Your task to perform on an android device: choose inbox layout in the gmail app Image 0: 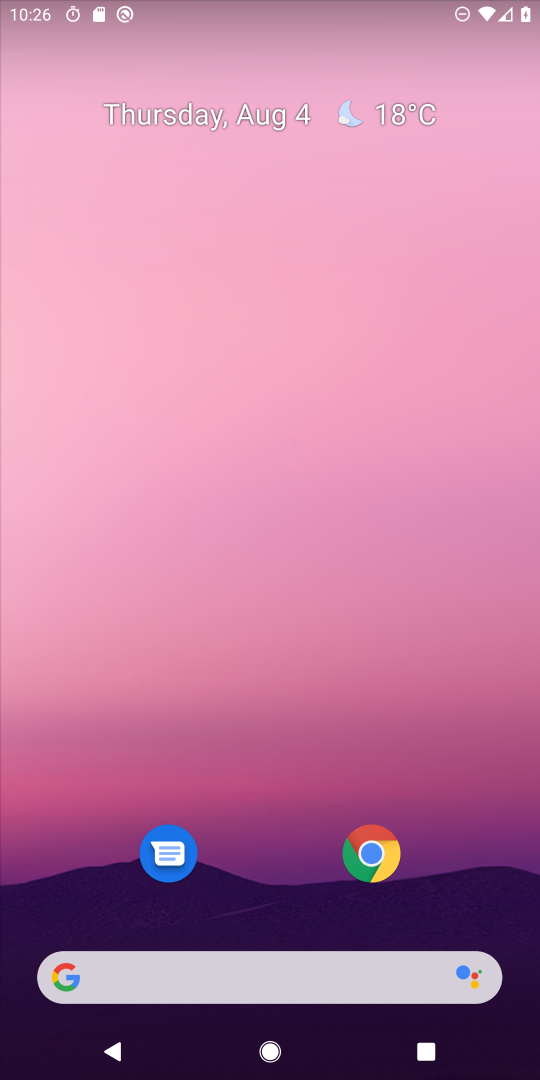
Step 0: drag from (261, 955) to (325, 208)
Your task to perform on an android device: choose inbox layout in the gmail app Image 1: 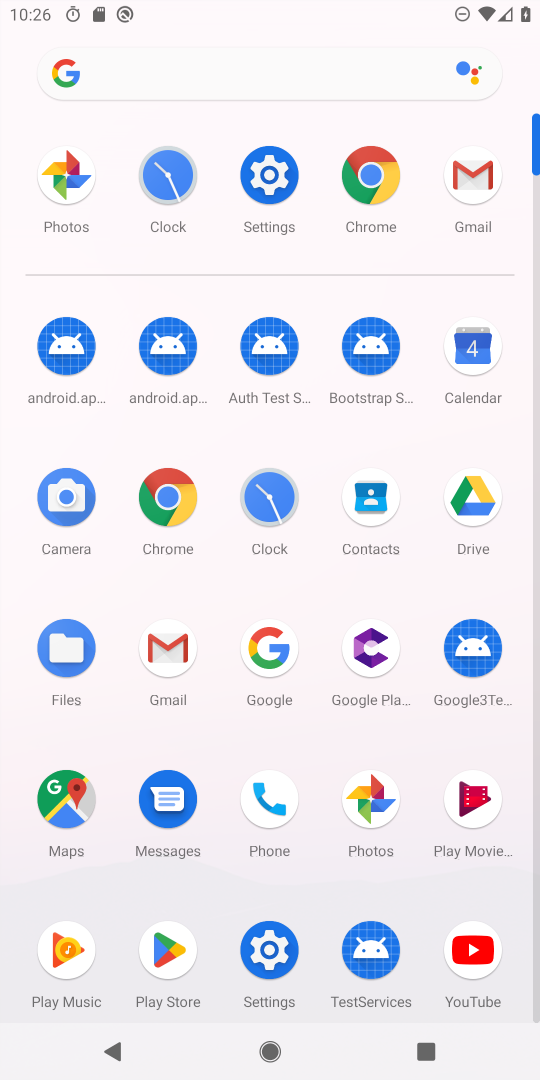
Step 1: click (183, 665)
Your task to perform on an android device: choose inbox layout in the gmail app Image 2: 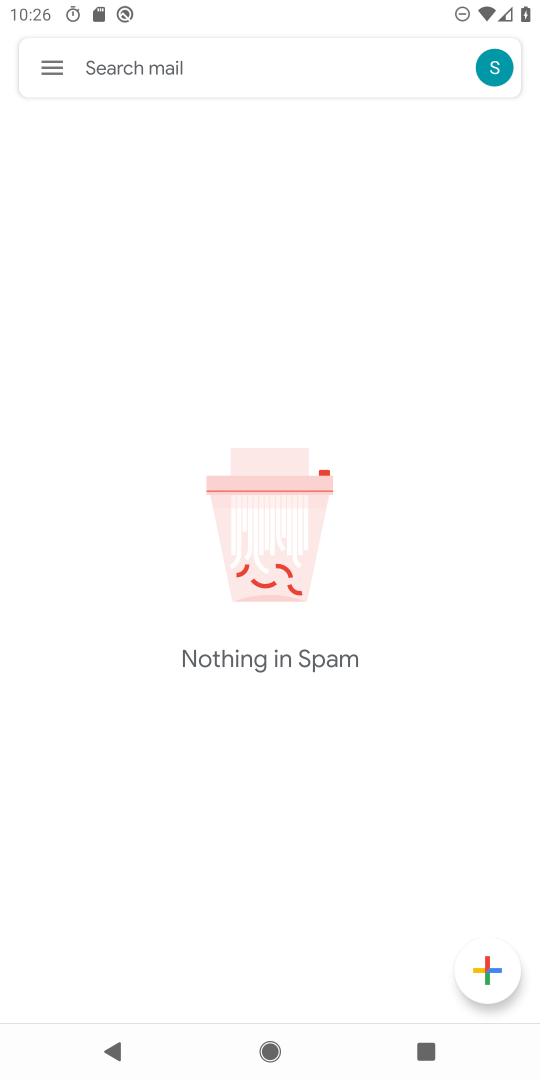
Step 2: click (46, 66)
Your task to perform on an android device: choose inbox layout in the gmail app Image 3: 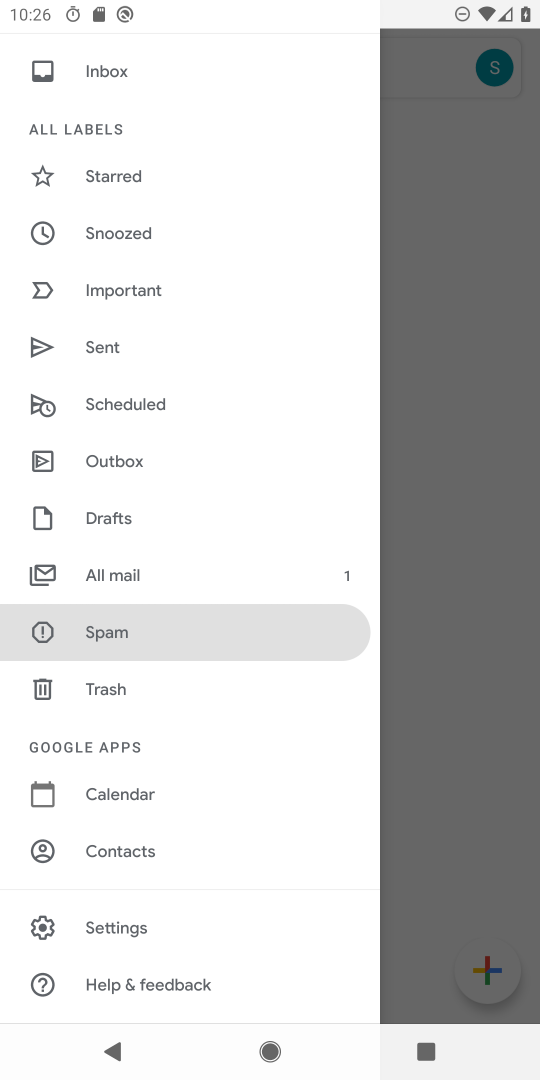
Step 3: drag from (121, 856) to (132, 467)
Your task to perform on an android device: choose inbox layout in the gmail app Image 4: 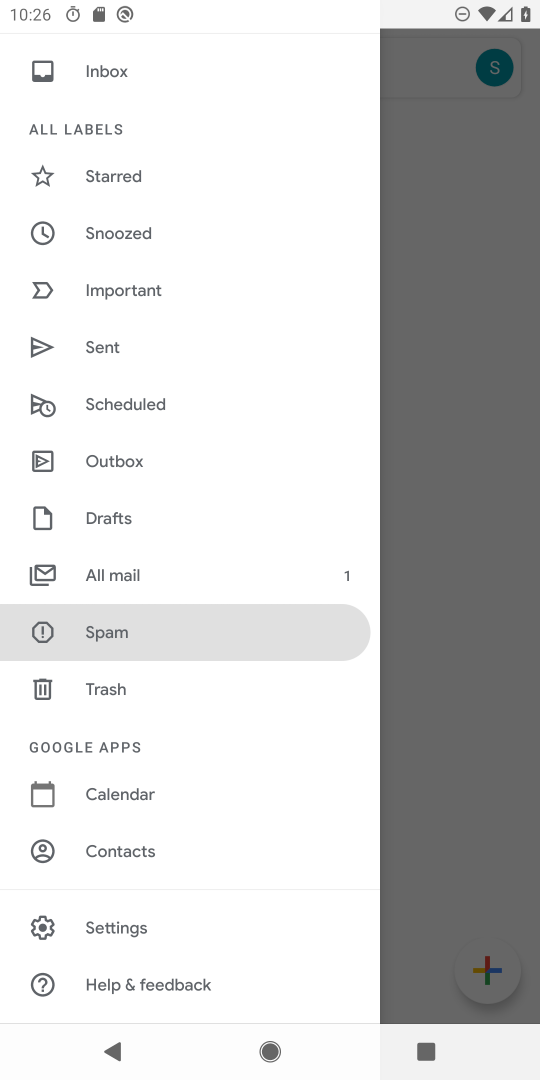
Step 4: click (124, 933)
Your task to perform on an android device: choose inbox layout in the gmail app Image 5: 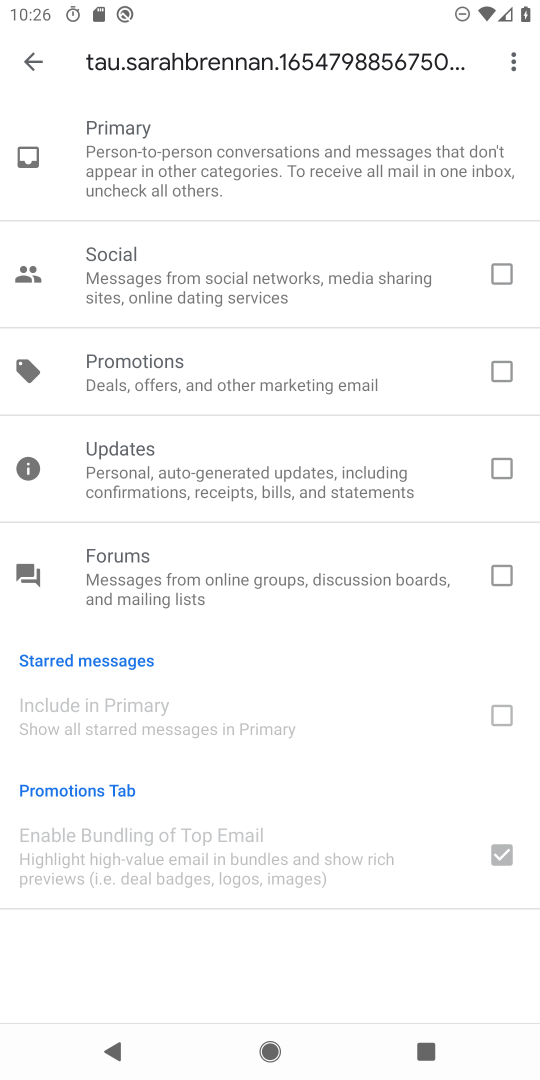
Step 5: drag from (137, 161) to (156, 315)
Your task to perform on an android device: choose inbox layout in the gmail app Image 6: 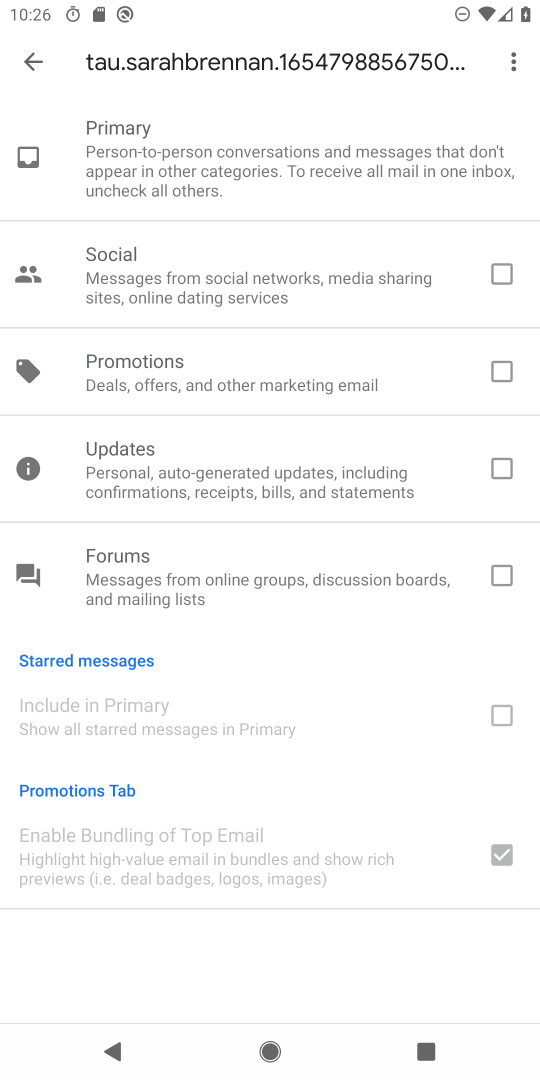
Step 6: click (35, 61)
Your task to perform on an android device: choose inbox layout in the gmail app Image 7: 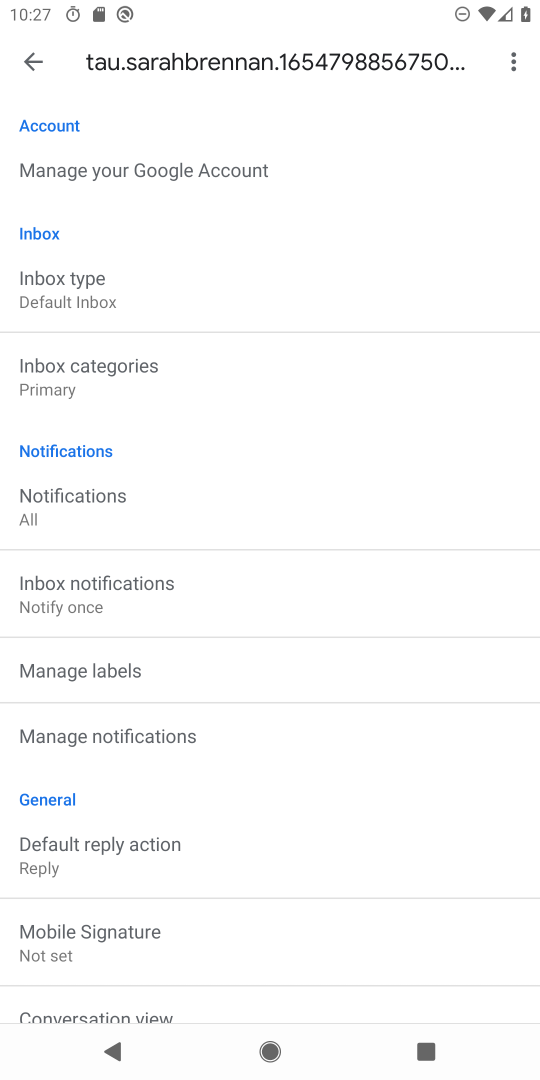
Step 7: click (119, 298)
Your task to perform on an android device: choose inbox layout in the gmail app Image 8: 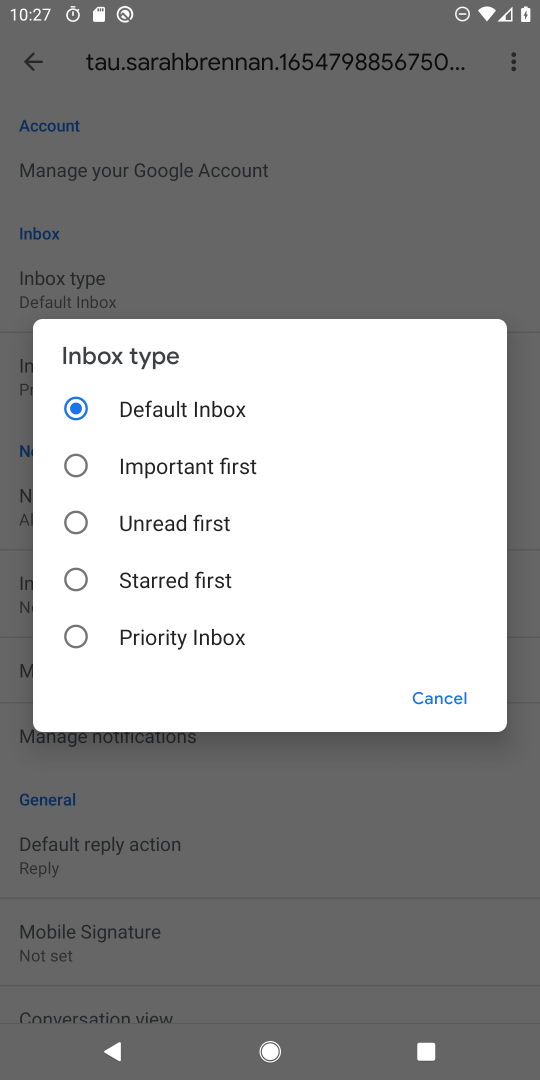
Step 8: click (170, 640)
Your task to perform on an android device: choose inbox layout in the gmail app Image 9: 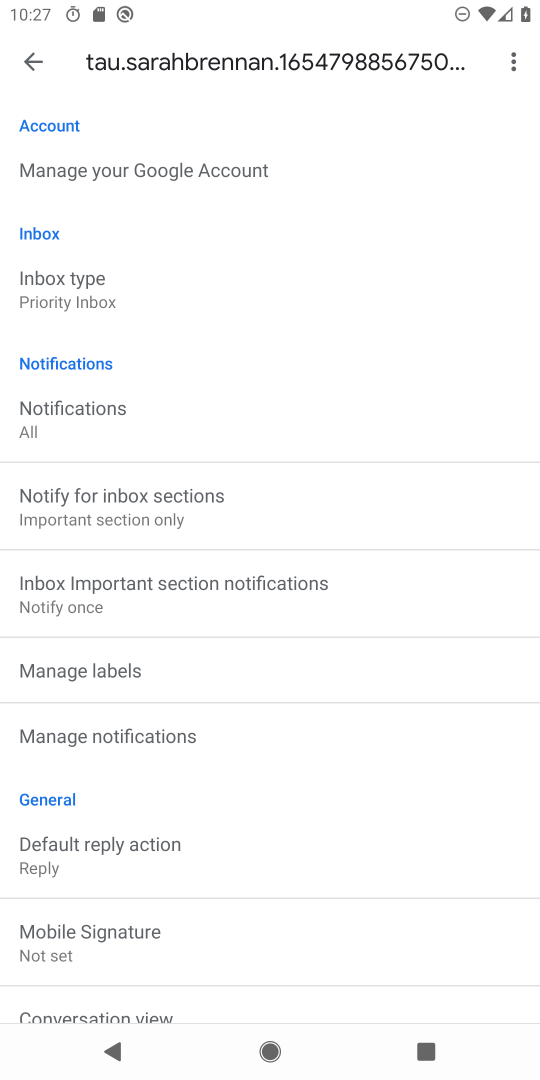
Step 9: task complete